Your task to perform on an android device: find snoozed emails in the gmail app Image 0: 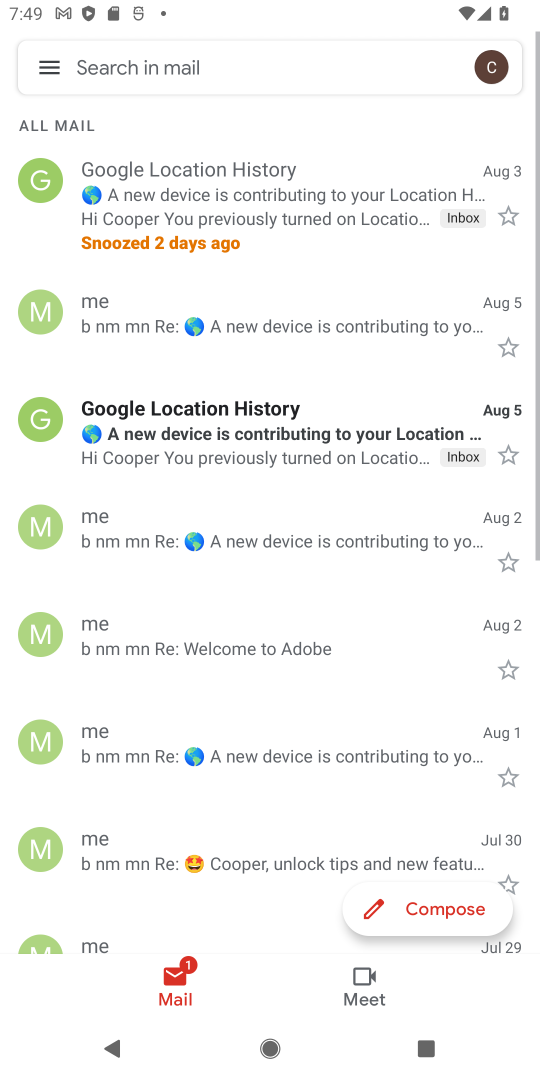
Step 0: press home button
Your task to perform on an android device: find snoozed emails in the gmail app Image 1: 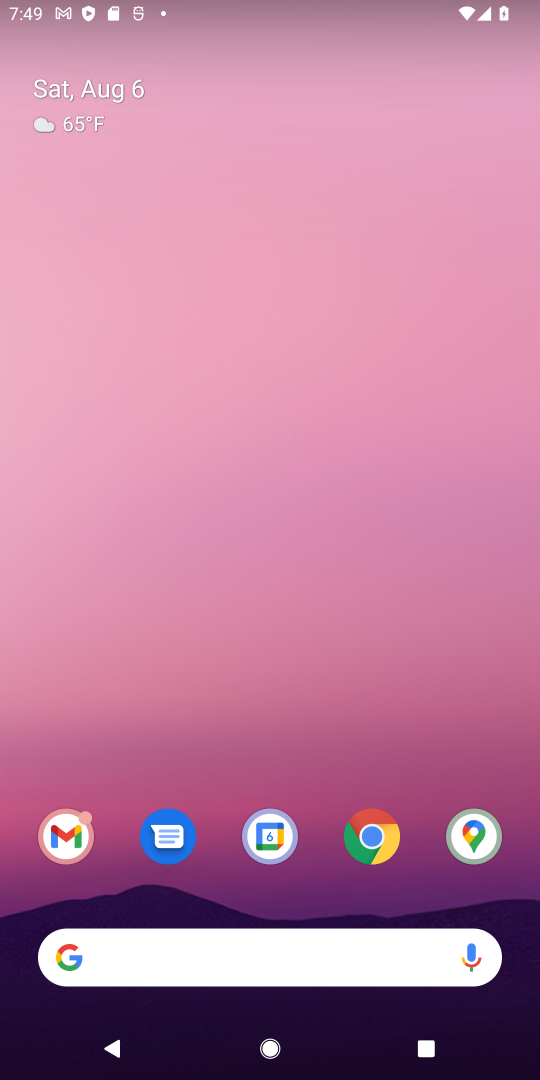
Step 1: drag from (424, 897) to (346, 41)
Your task to perform on an android device: find snoozed emails in the gmail app Image 2: 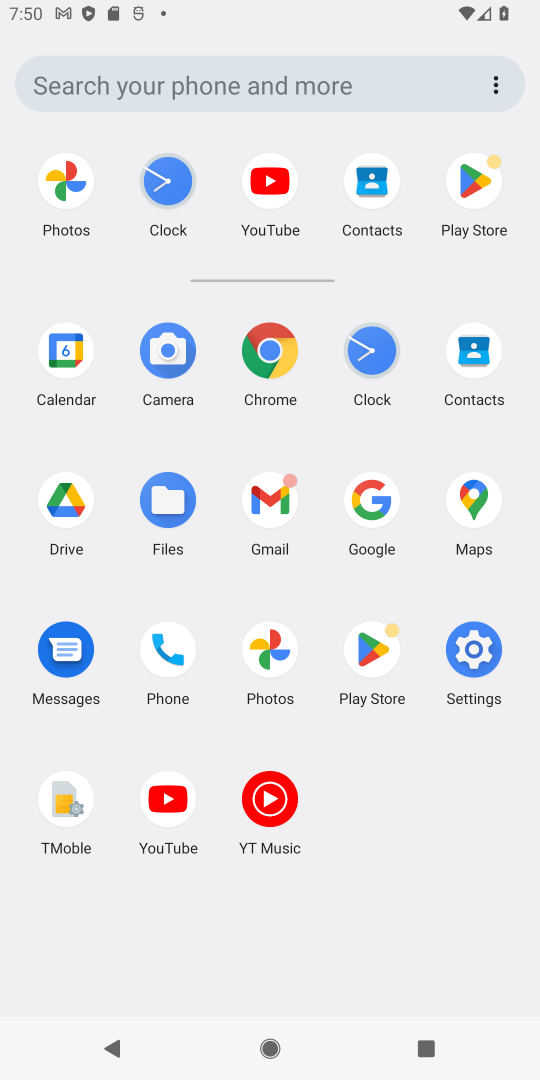
Step 2: click (280, 501)
Your task to perform on an android device: find snoozed emails in the gmail app Image 3: 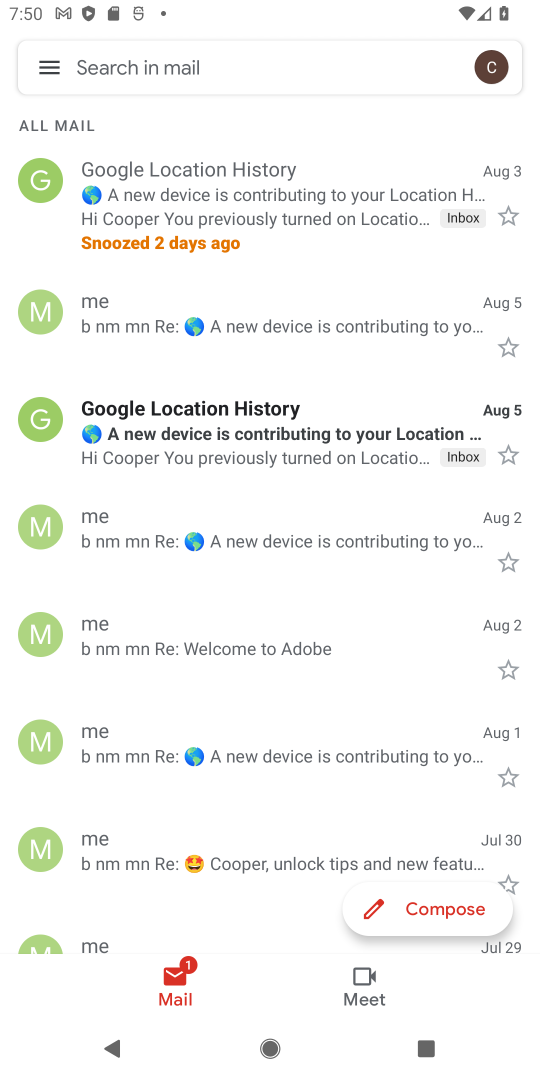
Step 3: click (47, 83)
Your task to perform on an android device: find snoozed emails in the gmail app Image 4: 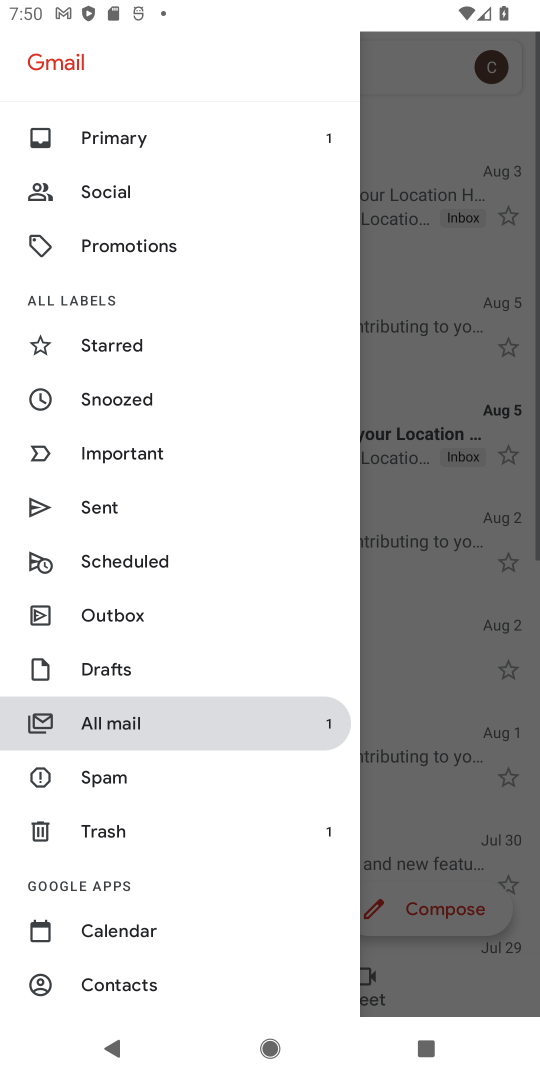
Step 4: click (128, 404)
Your task to perform on an android device: find snoozed emails in the gmail app Image 5: 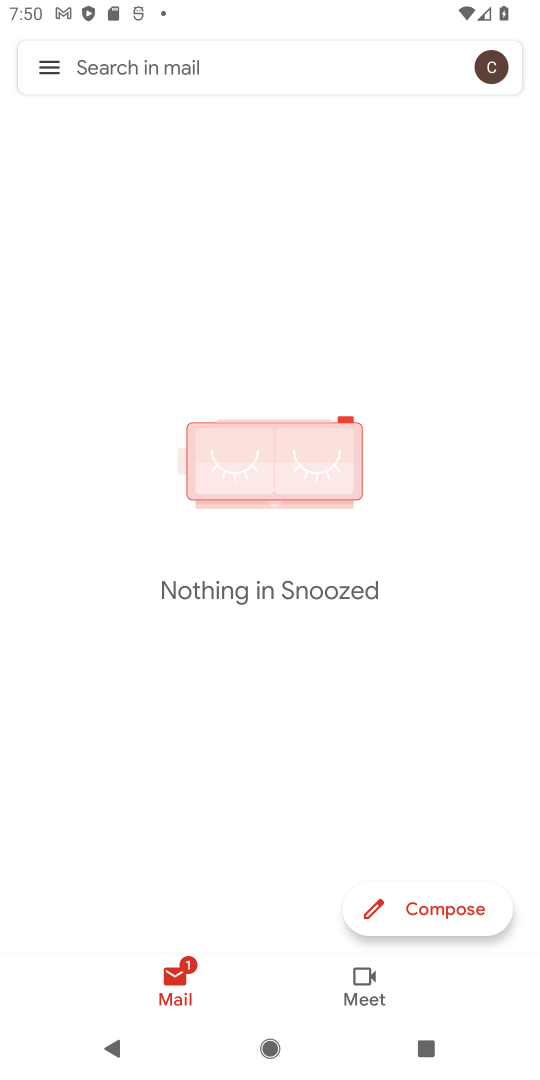
Step 5: task complete